Your task to perform on an android device: turn notification dots off Image 0: 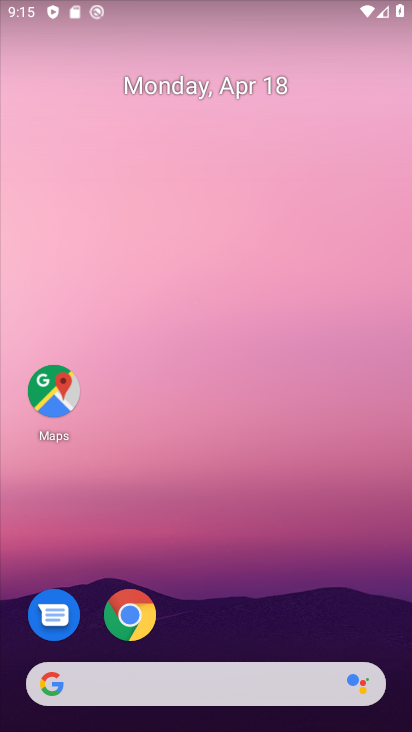
Step 0: drag from (224, 661) to (254, 341)
Your task to perform on an android device: turn notification dots off Image 1: 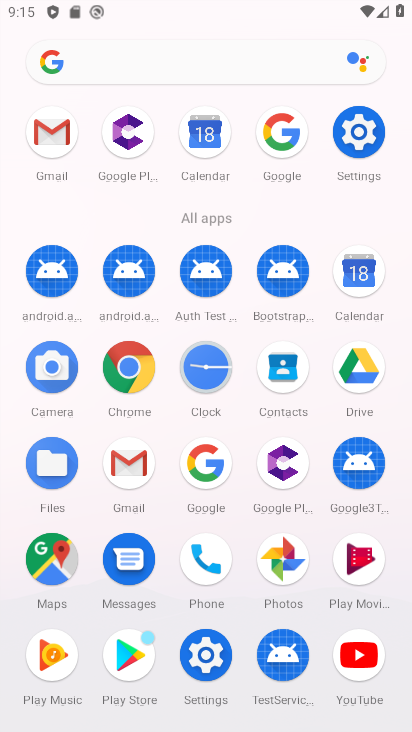
Step 1: click (363, 135)
Your task to perform on an android device: turn notification dots off Image 2: 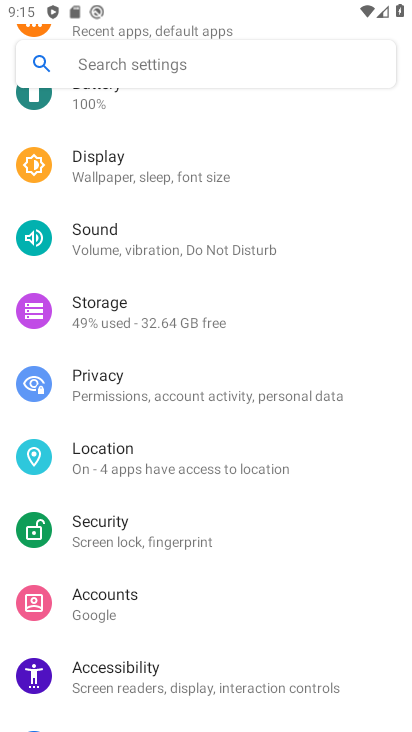
Step 2: click (403, 169)
Your task to perform on an android device: turn notification dots off Image 3: 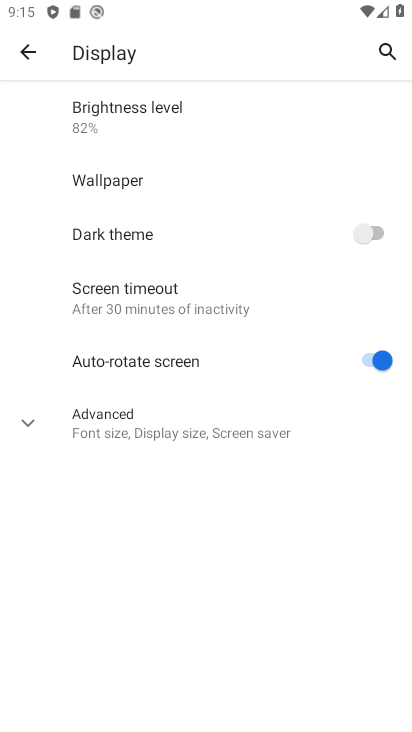
Step 3: click (20, 50)
Your task to perform on an android device: turn notification dots off Image 4: 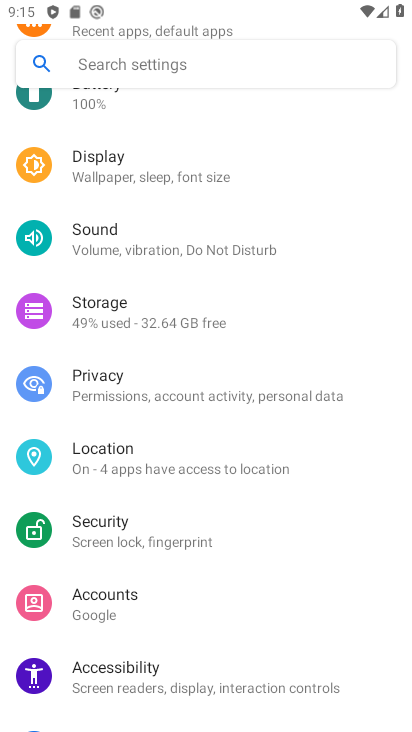
Step 4: drag from (223, 510) to (193, 208)
Your task to perform on an android device: turn notification dots off Image 5: 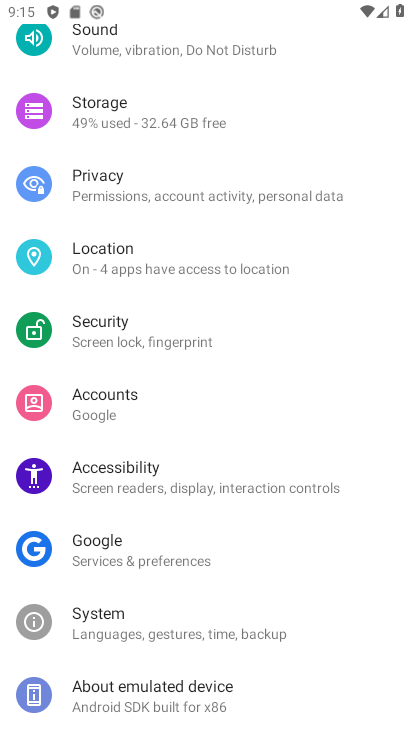
Step 5: drag from (205, 110) to (157, 534)
Your task to perform on an android device: turn notification dots off Image 6: 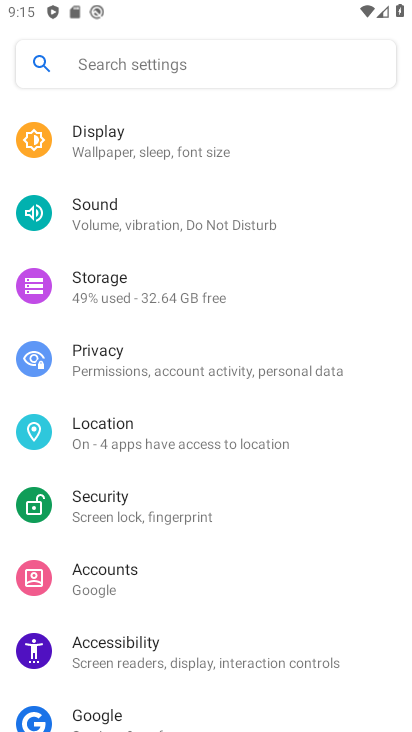
Step 6: drag from (263, 125) to (228, 545)
Your task to perform on an android device: turn notification dots off Image 7: 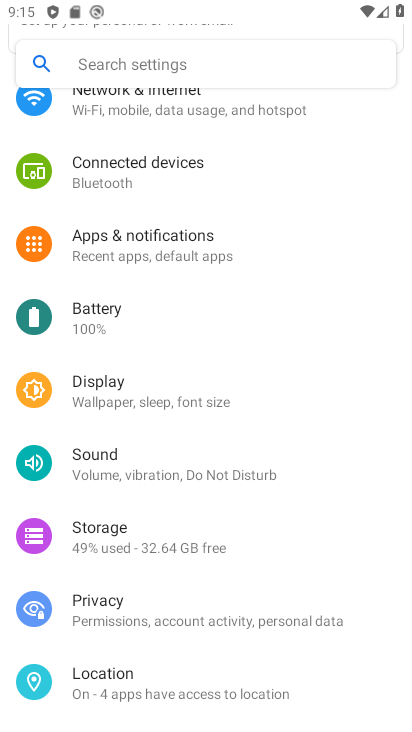
Step 7: click (172, 247)
Your task to perform on an android device: turn notification dots off Image 8: 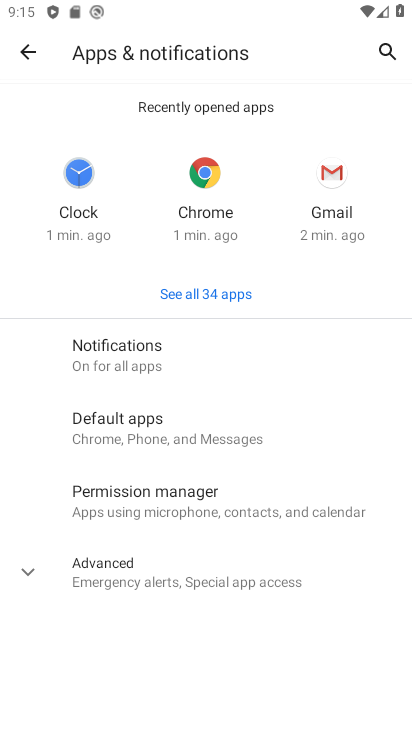
Step 8: click (124, 346)
Your task to perform on an android device: turn notification dots off Image 9: 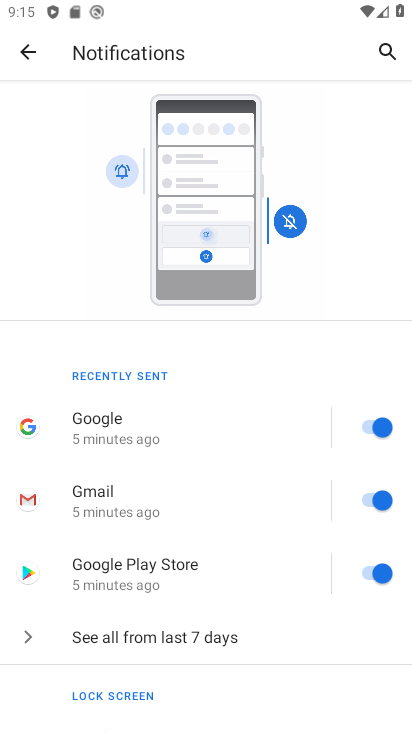
Step 9: drag from (227, 640) to (238, 251)
Your task to perform on an android device: turn notification dots off Image 10: 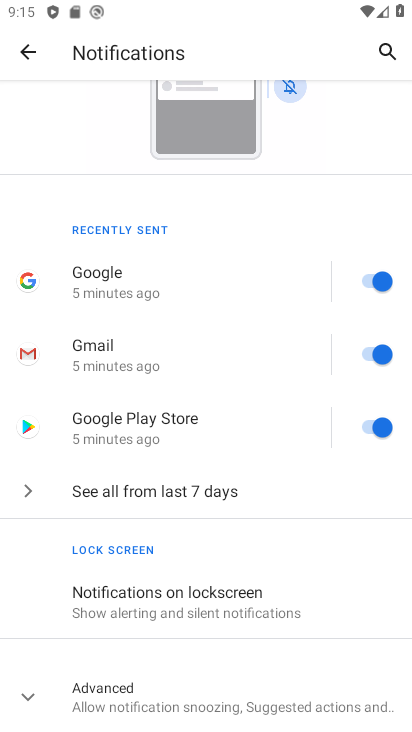
Step 10: click (175, 699)
Your task to perform on an android device: turn notification dots off Image 11: 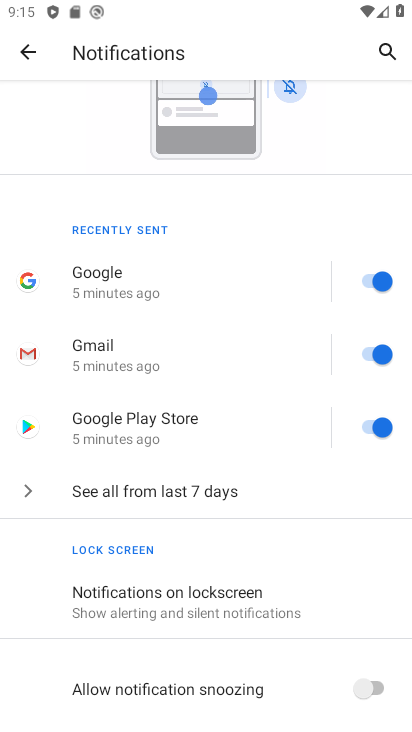
Step 11: drag from (261, 718) to (225, 471)
Your task to perform on an android device: turn notification dots off Image 12: 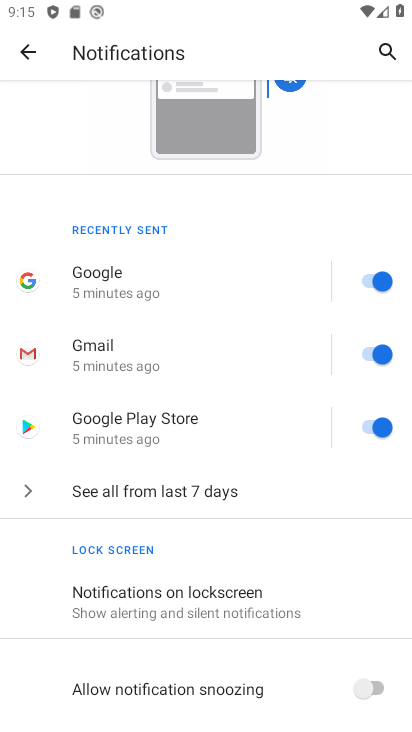
Step 12: drag from (298, 682) to (271, 325)
Your task to perform on an android device: turn notification dots off Image 13: 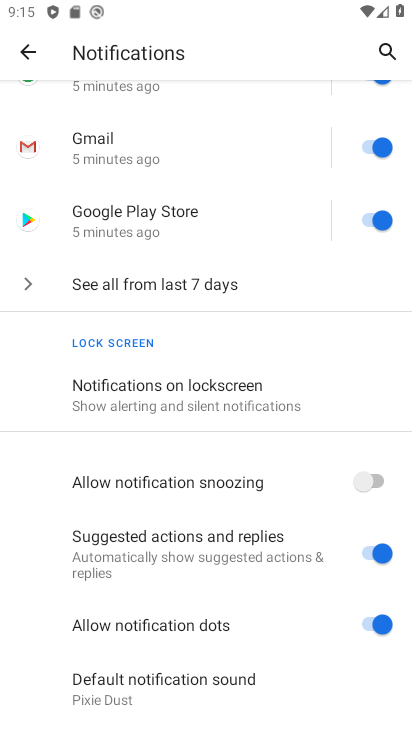
Step 13: click (367, 625)
Your task to perform on an android device: turn notification dots off Image 14: 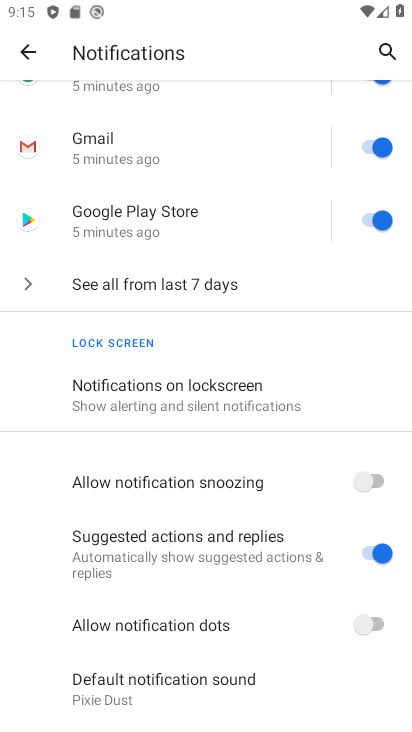
Step 14: task complete